Your task to perform on an android device: Open calendar and show me the fourth week of next month Image 0: 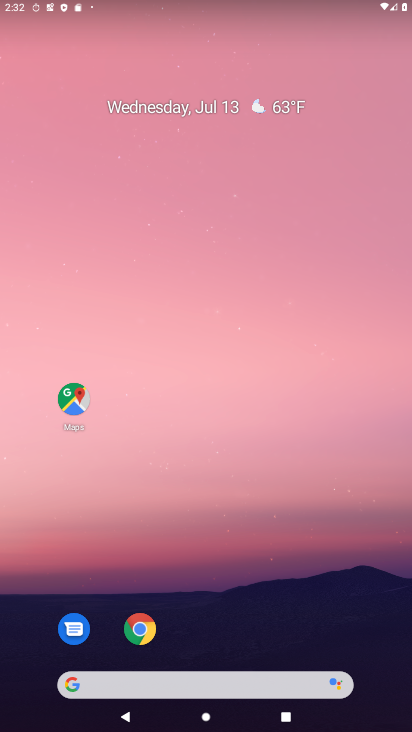
Step 0: drag from (206, 562) to (269, 102)
Your task to perform on an android device: Open calendar and show me the fourth week of next month Image 1: 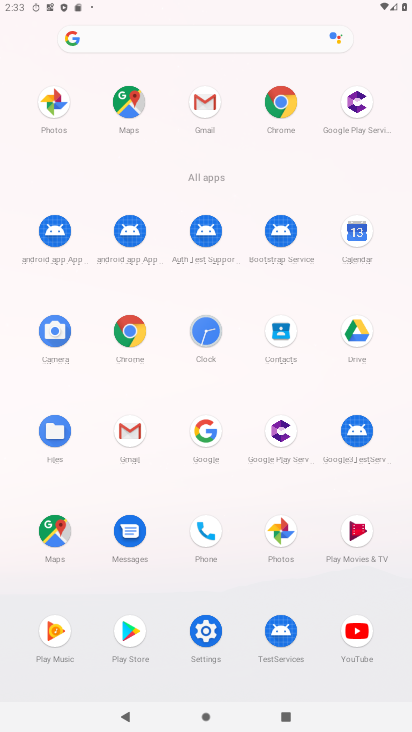
Step 1: click (360, 232)
Your task to perform on an android device: Open calendar and show me the fourth week of next month Image 2: 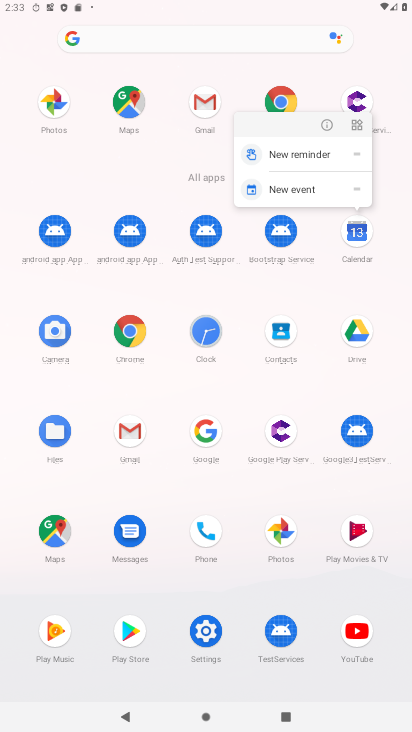
Step 2: click (330, 124)
Your task to perform on an android device: Open calendar and show me the fourth week of next month Image 3: 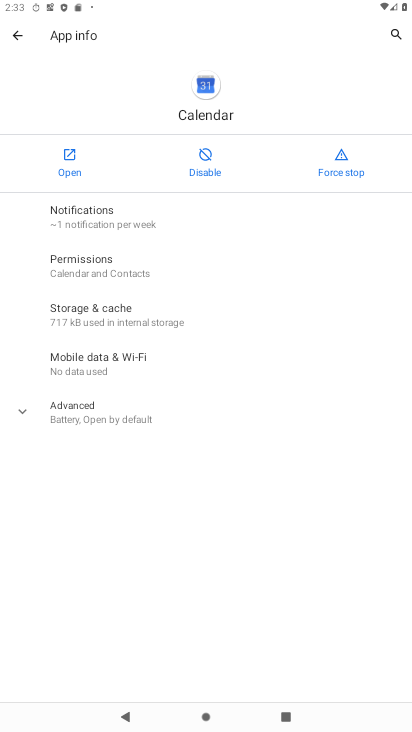
Step 3: click (73, 169)
Your task to perform on an android device: Open calendar and show me the fourth week of next month Image 4: 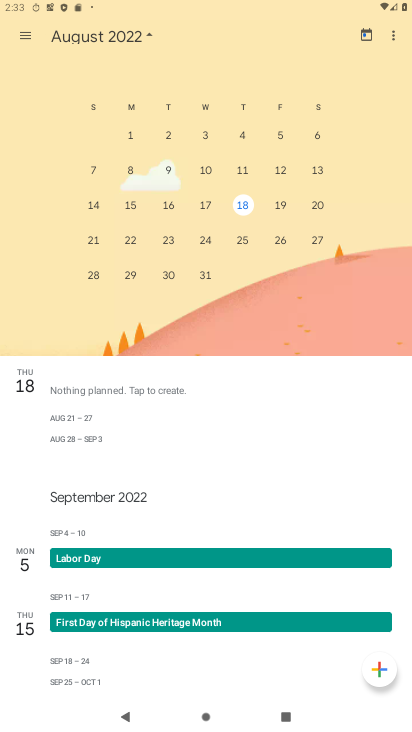
Step 4: drag from (234, 458) to (219, 0)
Your task to perform on an android device: Open calendar and show me the fourth week of next month Image 5: 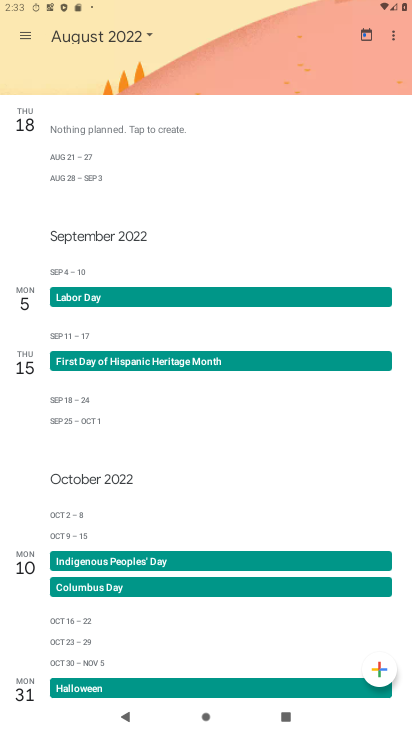
Step 5: click (107, 43)
Your task to perform on an android device: Open calendar and show me the fourth week of next month Image 6: 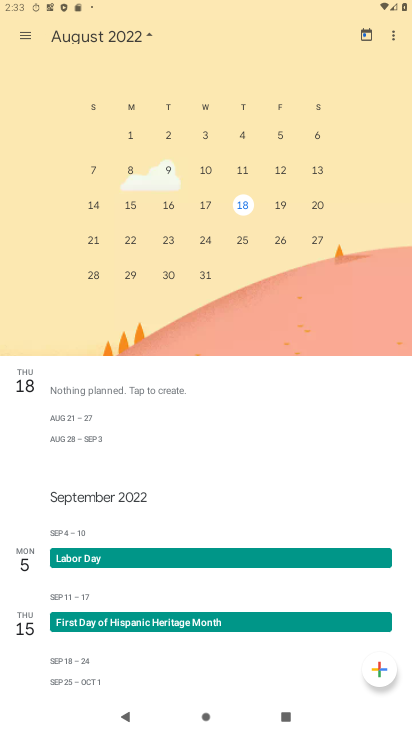
Step 6: click (234, 238)
Your task to perform on an android device: Open calendar and show me the fourth week of next month Image 7: 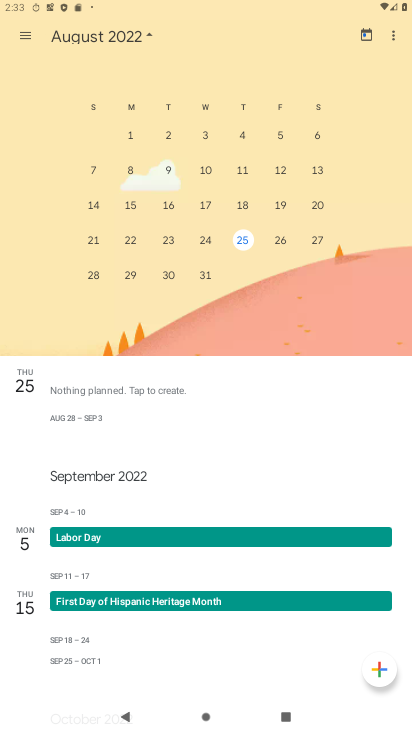
Step 7: task complete